Your task to perform on an android device: Open the calendar and show me this week's events Image 0: 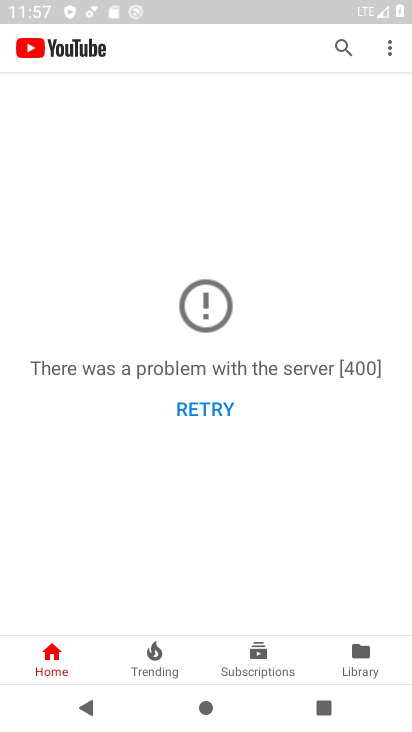
Step 0: press home button
Your task to perform on an android device: Open the calendar and show me this week's events Image 1: 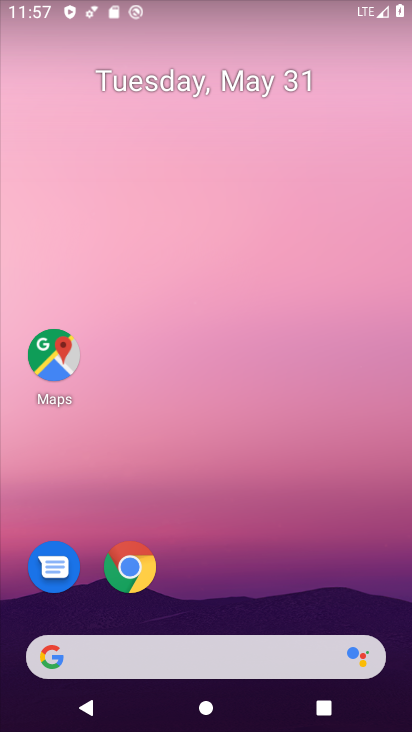
Step 1: drag from (263, 612) to (211, 93)
Your task to perform on an android device: Open the calendar and show me this week's events Image 2: 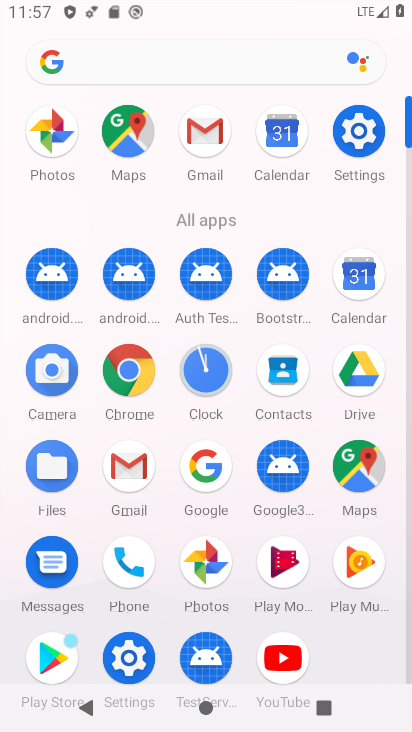
Step 2: click (286, 122)
Your task to perform on an android device: Open the calendar and show me this week's events Image 3: 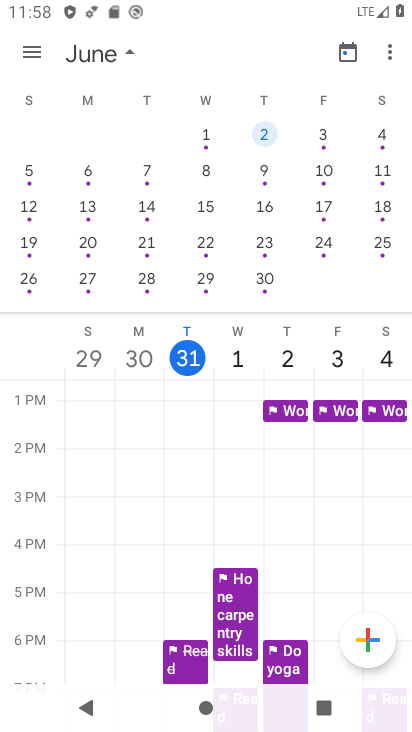
Step 3: task complete